Your task to perform on an android device: turn off data saver in the chrome app Image 0: 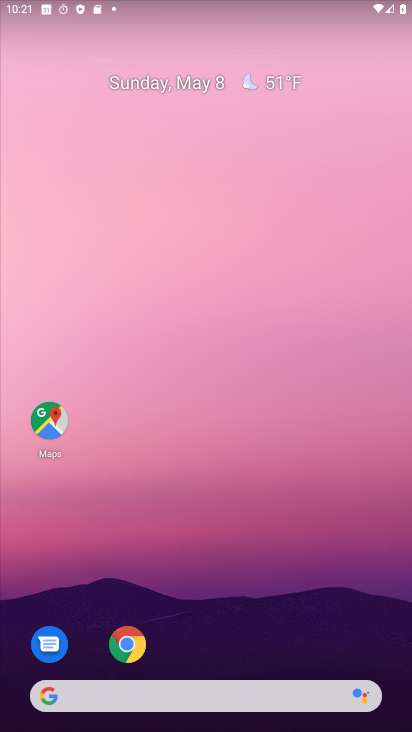
Step 0: drag from (205, 640) to (251, 118)
Your task to perform on an android device: turn off data saver in the chrome app Image 1: 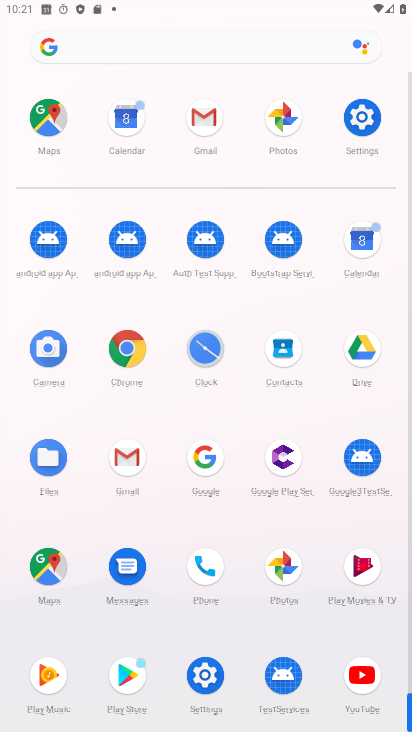
Step 1: click (120, 356)
Your task to perform on an android device: turn off data saver in the chrome app Image 2: 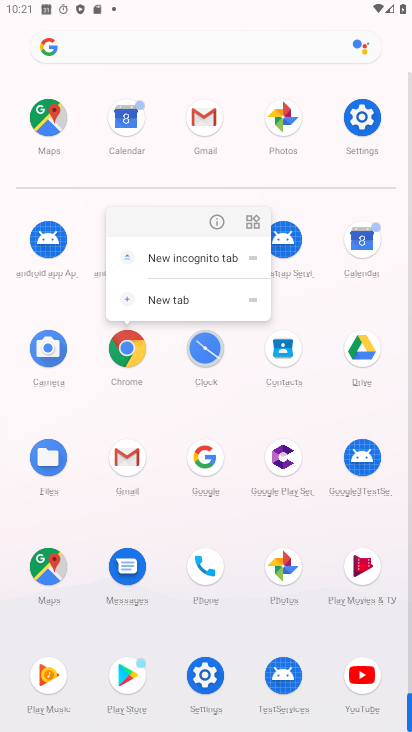
Step 2: click (211, 213)
Your task to perform on an android device: turn off data saver in the chrome app Image 3: 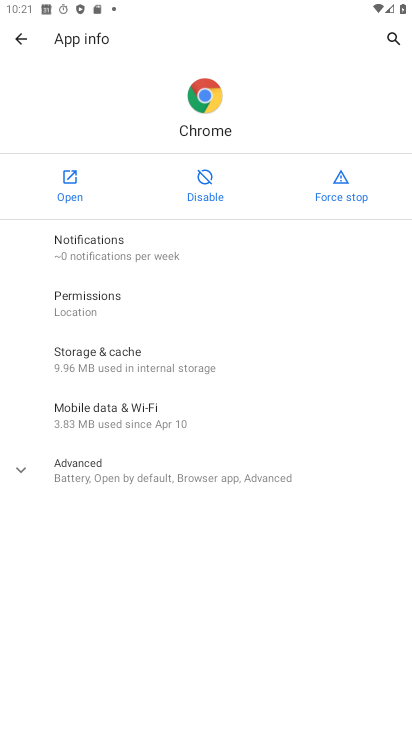
Step 3: click (67, 173)
Your task to perform on an android device: turn off data saver in the chrome app Image 4: 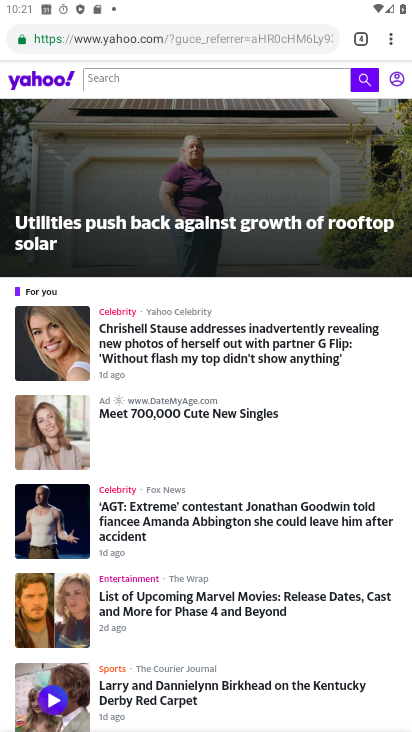
Step 4: drag from (387, 45) to (274, 473)
Your task to perform on an android device: turn off data saver in the chrome app Image 5: 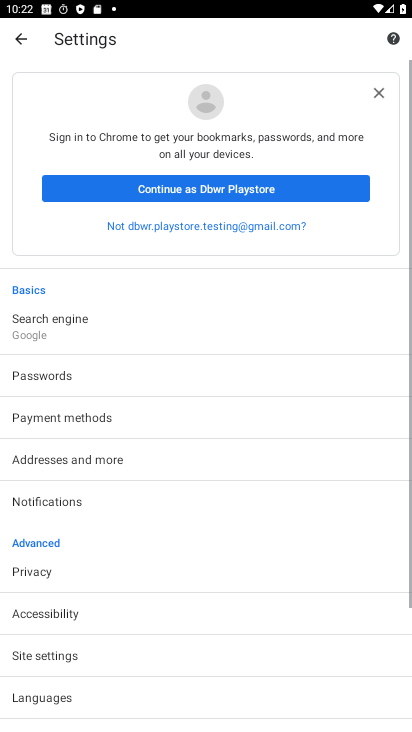
Step 5: drag from (94, 668) to (253, 64)
Your task to perform on an android device: turn off data saver in the chrome app Image 6: 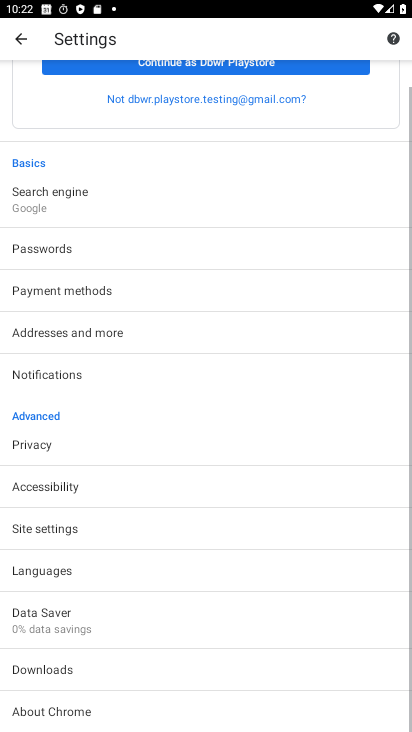
Step 6: click (65, 626)
Your task to perform on an android device: turn off data saver in the chrome app Image 7: 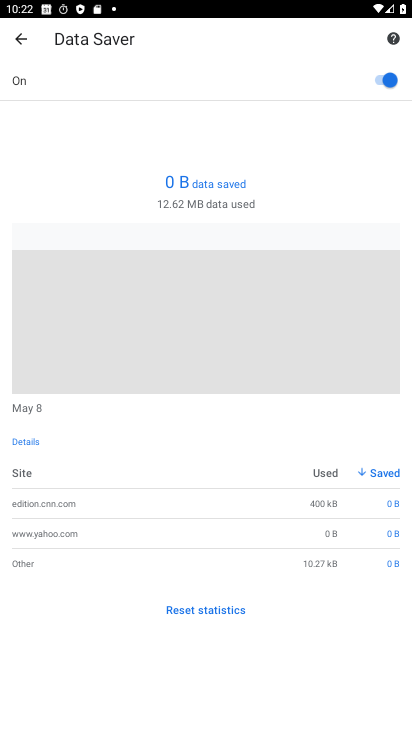
Step 7: click (385, 77)
Your task to perform on an android device: turn off data saver in the chrome app Image 8: 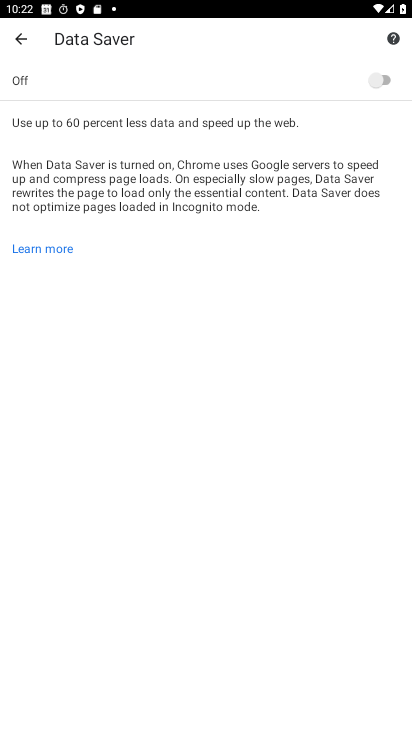
Step 8: task complete